Your task to perform on an android device: Go to battery settings Image 0: 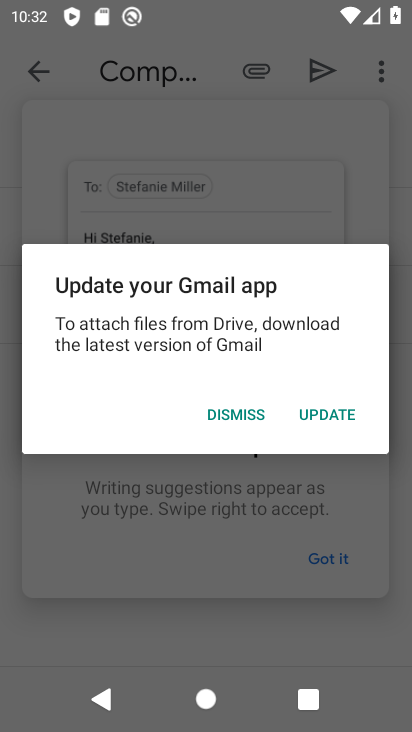
Step 0: press home button
Your task to perform on an android device: Go to battery settings Image 1: 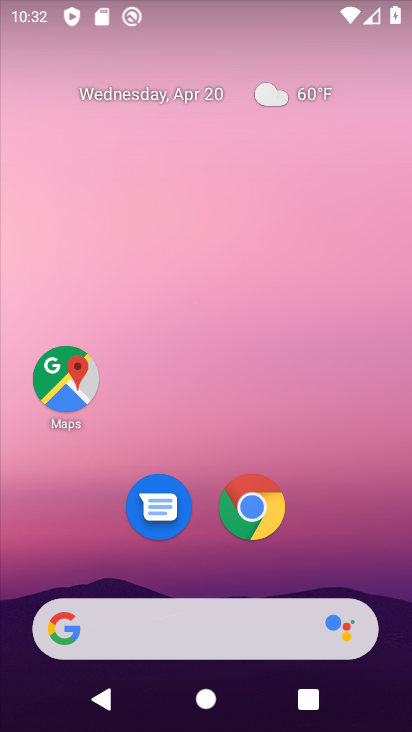
Step 1: drag from (308, 381) to (267, 137)
Your task to perform on an android device: Go to battery settings Image 2: 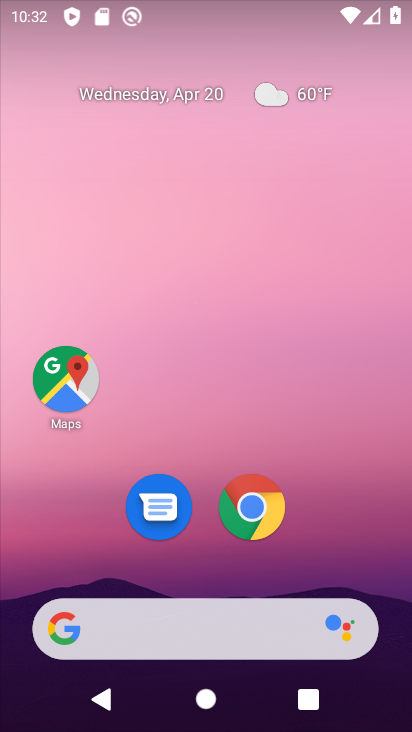
Step 2: drag from (328, 536) to (255, 106)
Your task to perform on an android device: Go to battery settings Image 3: 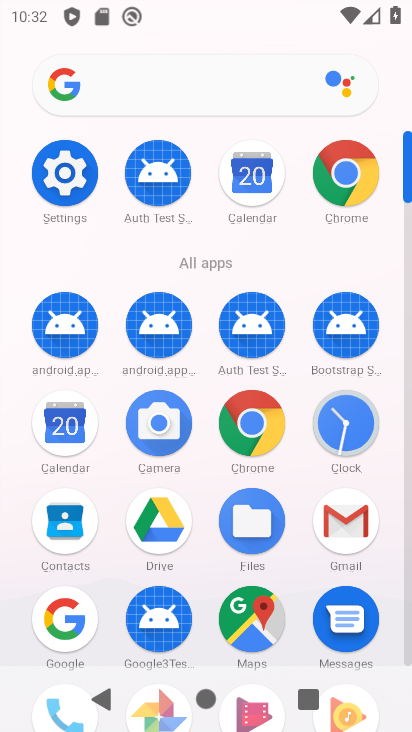
Step 3: click (72, 173)
Your task to perform on an android device: Go to battery settings Image 4: 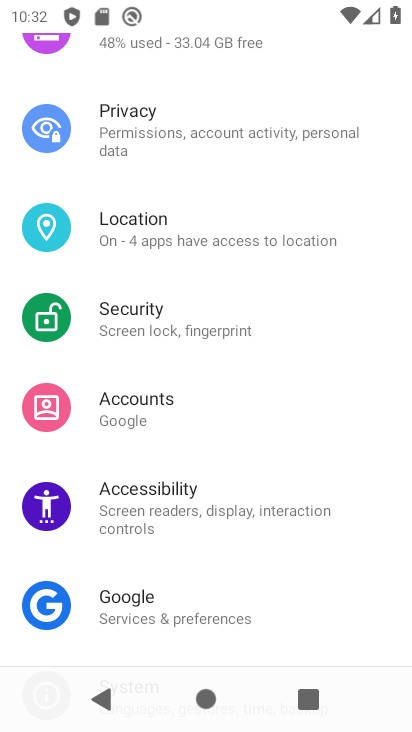
Step 4: drag from (246, 588) to (297, 145)
Your task to perform on an android device: Go to battery settings Image 5: 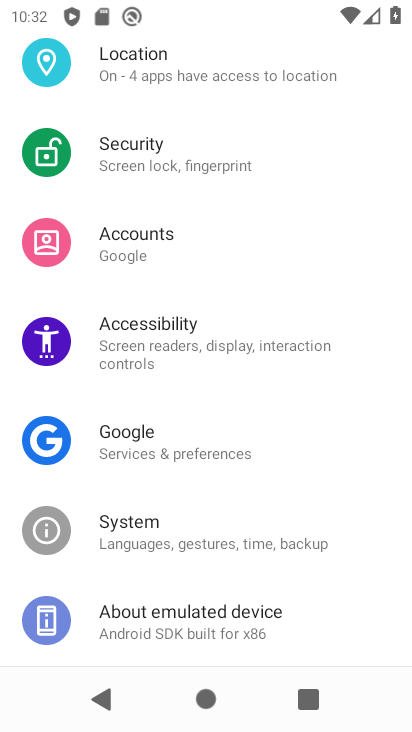
Step 5: drag from (217, 216) to (193, 593)
Your task to perform on an android device: Go to battery settings Image 6: 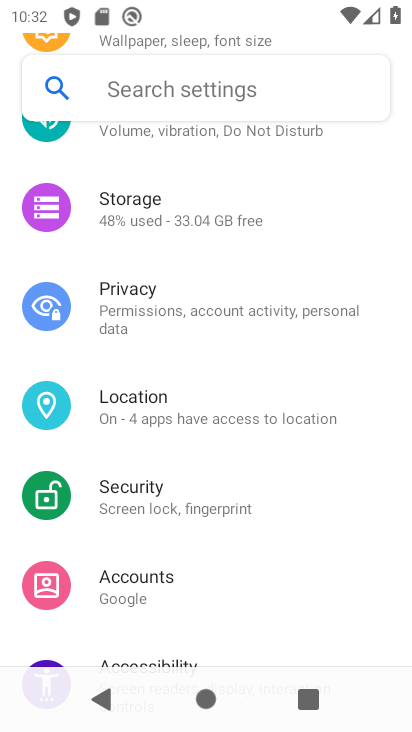
Step 6: drag from (231, 260) to (148, 574)
Your task to perform on an android device: Go to battery settings Image 7: 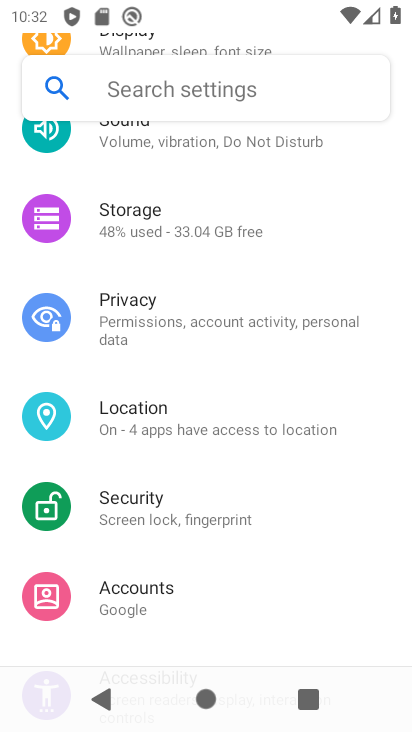
Step 7: drag from (205, 348) to (196, 658)
Your task to perform on an android device: Go to battery settings Image 8: 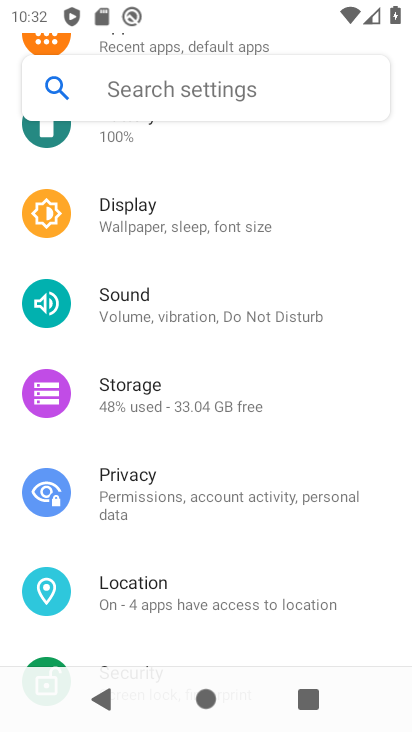
Step 8: drag from (231, 312) to (214, 711)
Your task to perform on an android device: Go to battery settings Image 9: 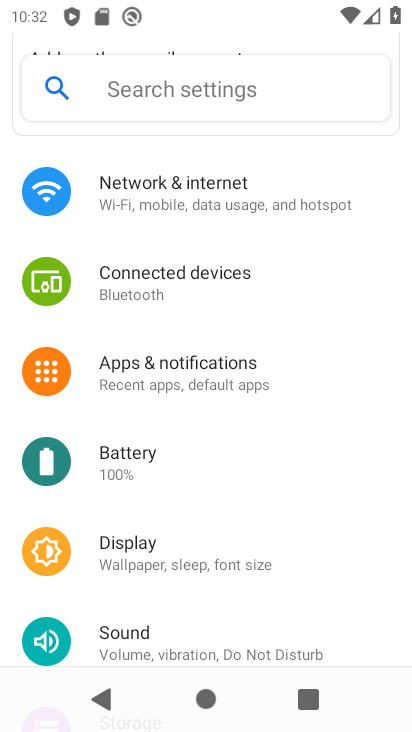
Step 9: drag from (214, 583) to (276, 301)
Your task to perform on an android device: Go to battery settings Image 10: 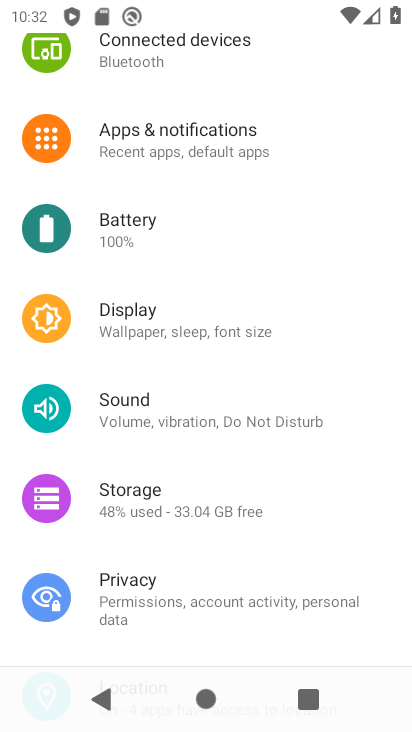
Step 10: click (130, 241)
Your task to perform on an android device: Go to battery settings Image 11: 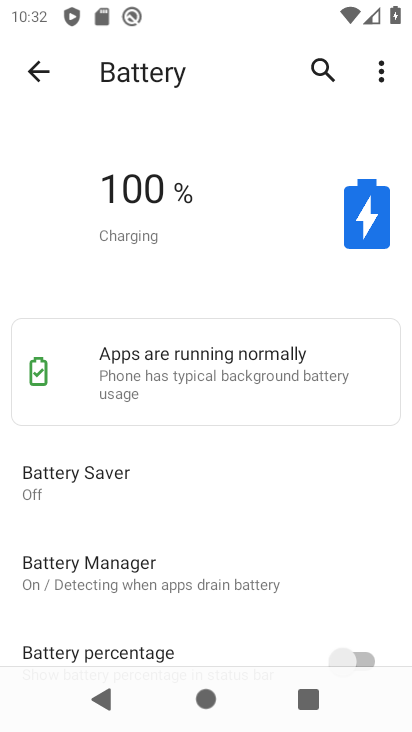
Step 11: task complete